Your task to perform on an android device: Turn on the flashlight Image 0: 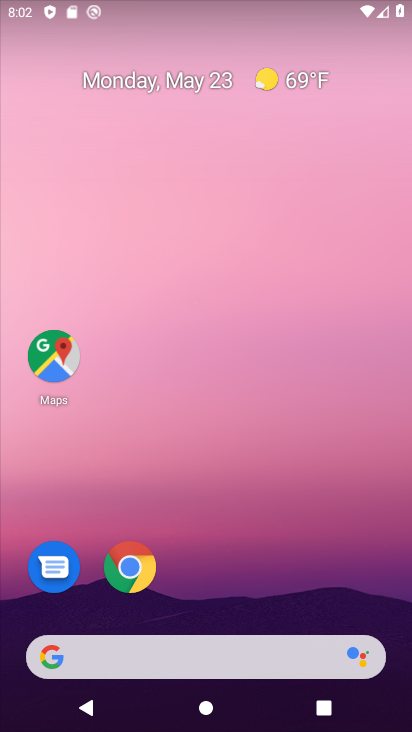
Step 0: drag from (225, 624) to (244, 71)
Your task to perform on an android device: Turn on the flashlight Image 1: 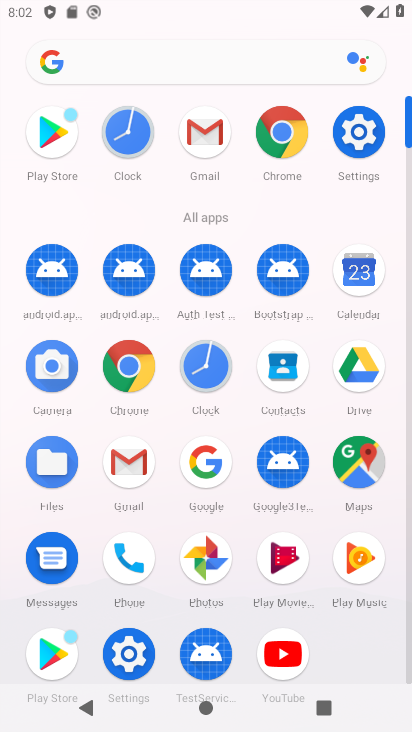
Step 1: click (358, 136)
Your task to perform on an android device: Turn on the flashlight Image 2: 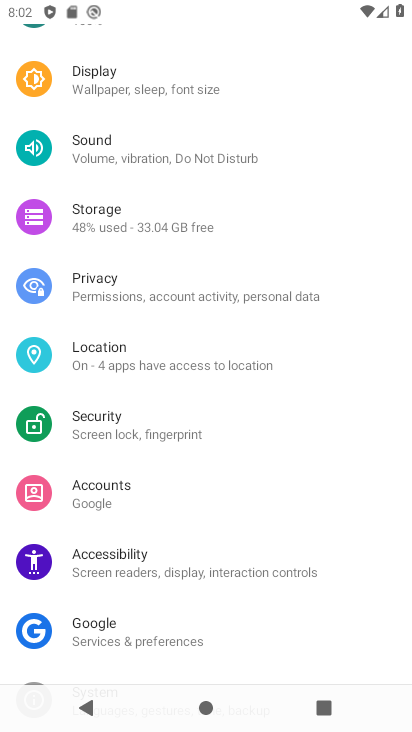
Step 2: drag from (281, 98) to (231, 621)
Your task to perform on an android device: Turn on the flashlight Image 3: 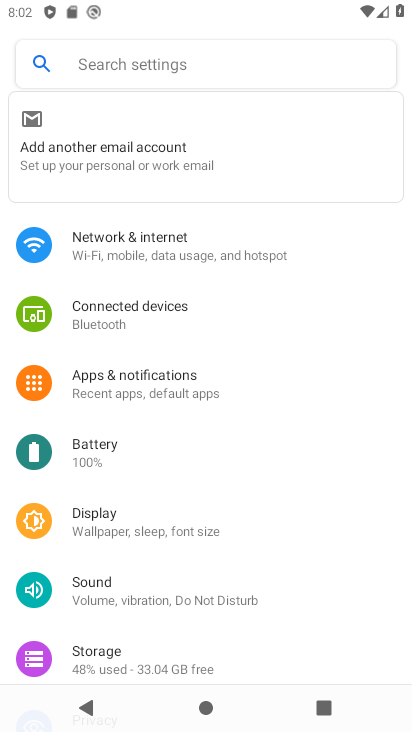
Step 3: click (230, 61)
Your task to perform on an android device: Turn on the flashlight Image 4: 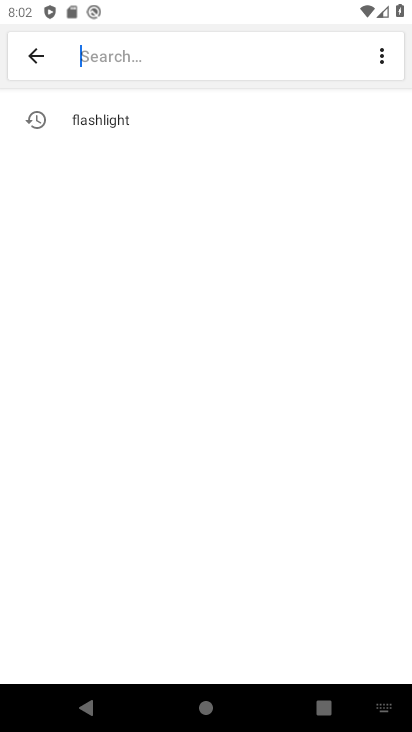
Step 4: type "flashlight"
Your task to perform on an android device: Turn on the flashlight Image 5: 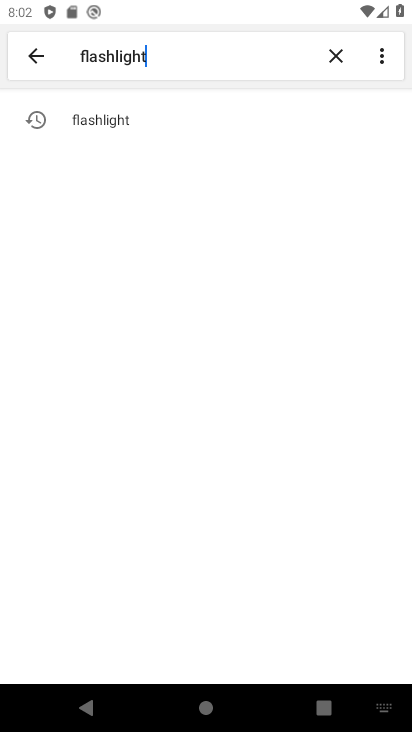
Step 5: click (119, 133)
Your task to perform on an android device: Turn on the flashlight Image 6: 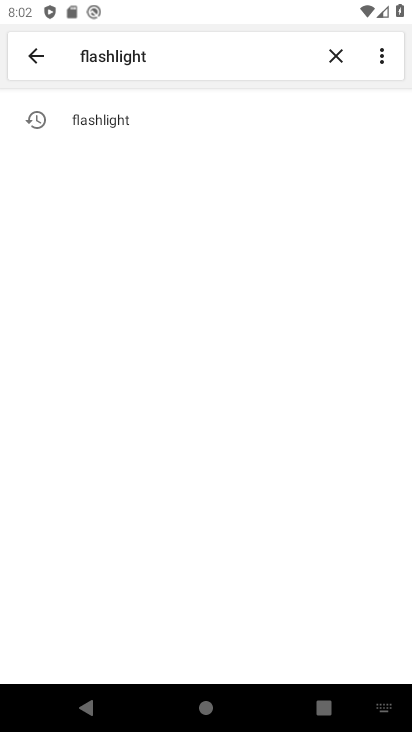
Step 6: click (127, 121)
Your task to perform on an android device: Turn on the flashlight Image 7: 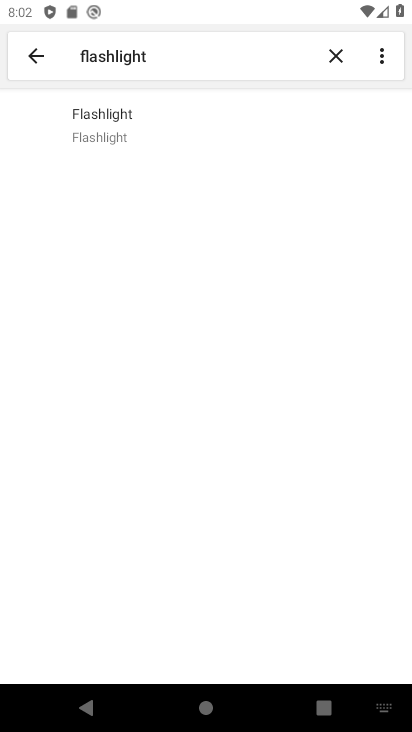
Step 7: click (127, 121)
Your task to perform on an android device: Turn on the flashlight Image 8: 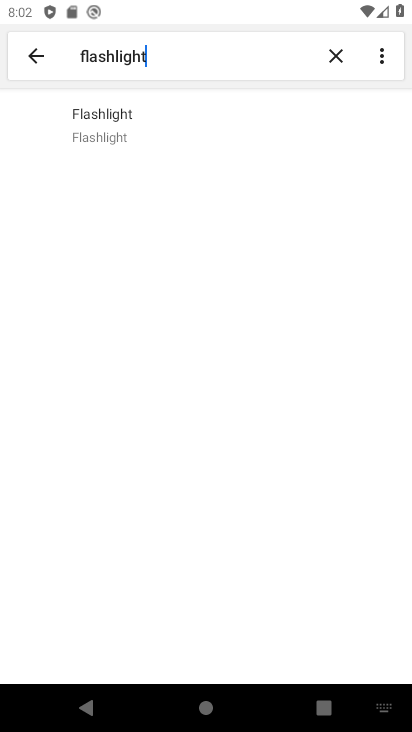
Step 8: task complete